Your task to perform on an android device: Search for sushi restaurants on Maps Image 0: 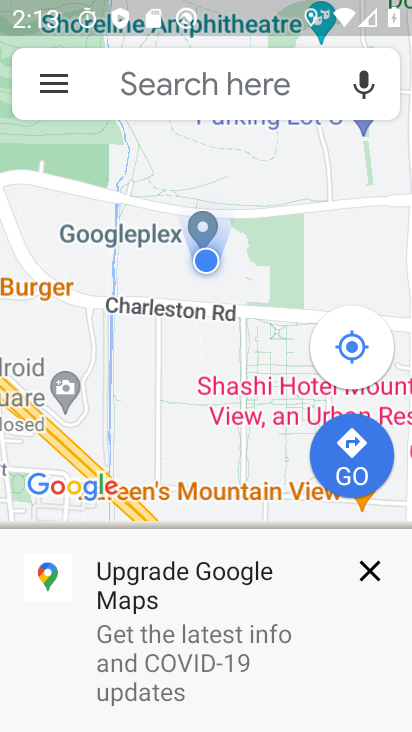
Step 0: click (217, 95)
Your task to perform on an android device: Search for sushi restaurants on Maps Image 1: 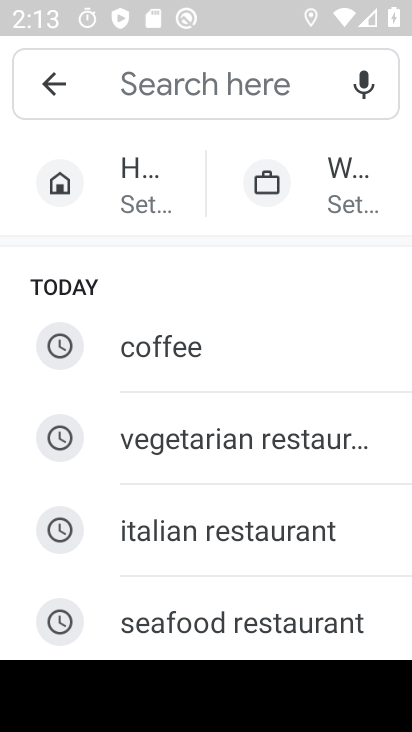
Step 1: type "sushi restaurants"
Your task to perform on an android device: Search for sushi restaurants on Maps Image 2: 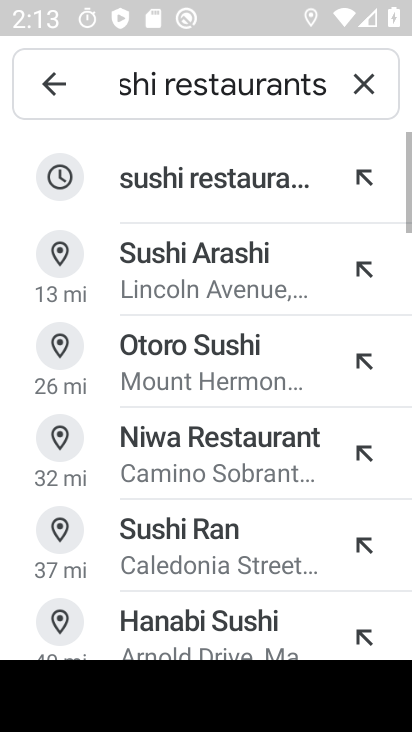
Step 2: click (226, 180)
Your task to perform on an android device: Search for sushi restaurants on Maps Image 3: 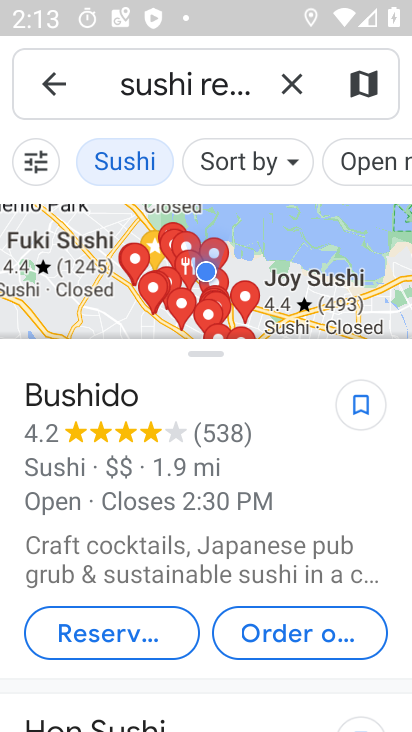
Step 3: task complete